Your task to perform on an android device: Open settings Image 0: 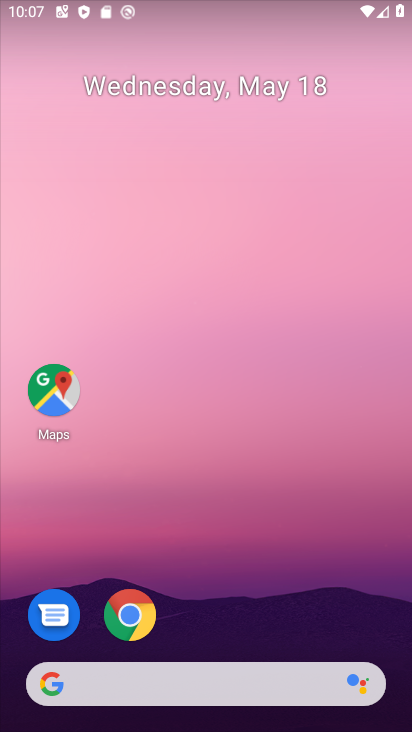
Step 0: drag from (231, 622) to (247, 76)
Your task to perform on an android device: Open settings Image 1: 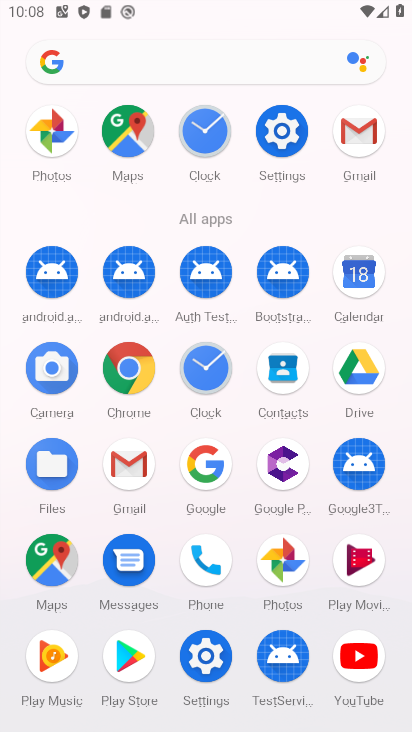
Step 1: click (273, 159)
Your task to perform on an android device: Open settings Image 2: 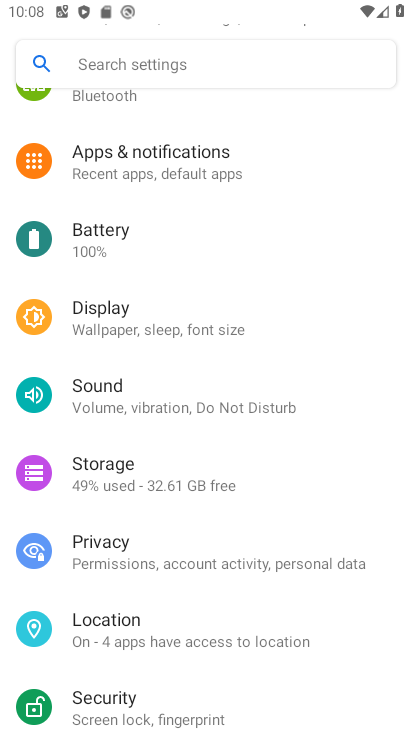
Step 2: task complete